Your task to perform on an android device: manage bookmarks in the chrome app Image 0: 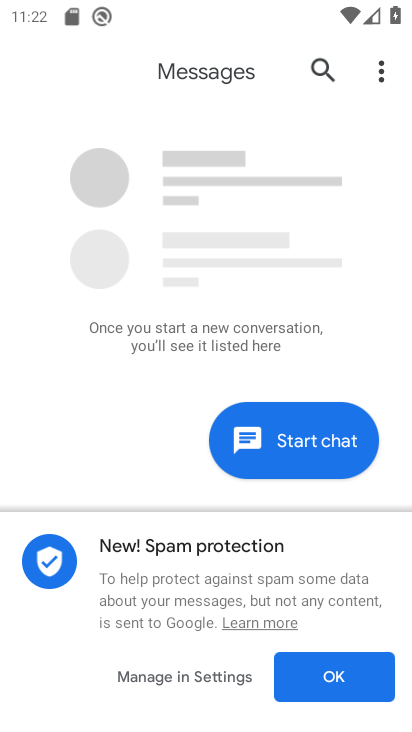
Step 0: press home button
Your task to perform on an android device: manage bookmarks in the chrome app Image 1: 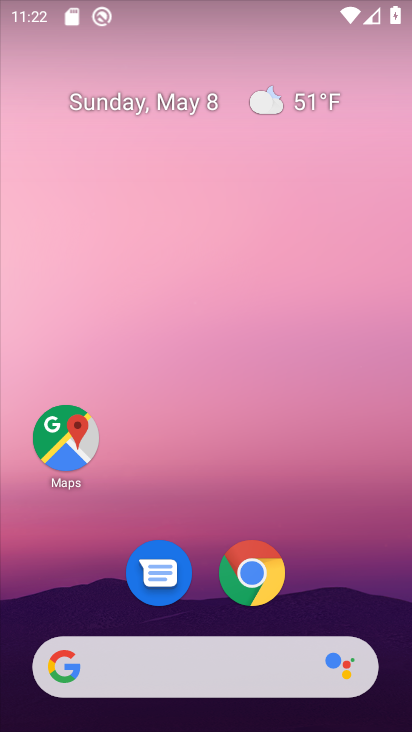
Step 1: click (240, 575)
Your task to perform on an android device: manage bookmarks in the chrome app Image 2: 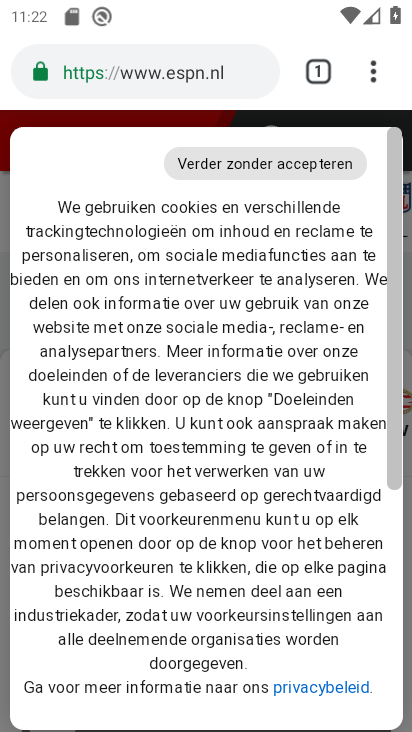
Step 2: click (375, 70)
Your task to perform on an android device: manage bookmarks in the chrome app Image 3: 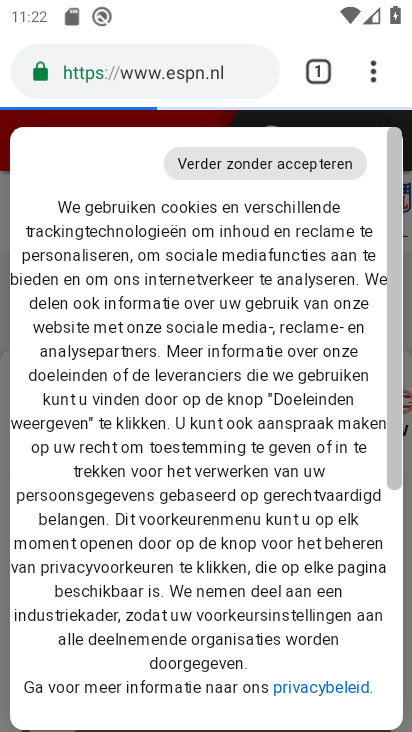
Step 3: click (375, 70)
Your task to perform on an android device: manage bookmarks in the chrome app Image 4: 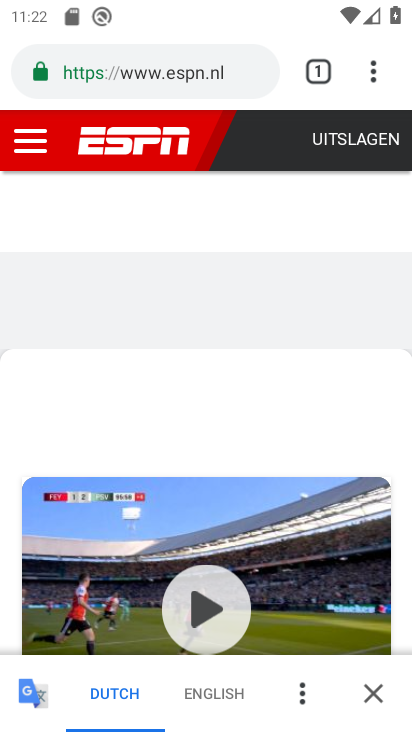
Step 4: click (375, 70)
Your task to perform on an android device: manage bookmarks in the chrome app Image 5: 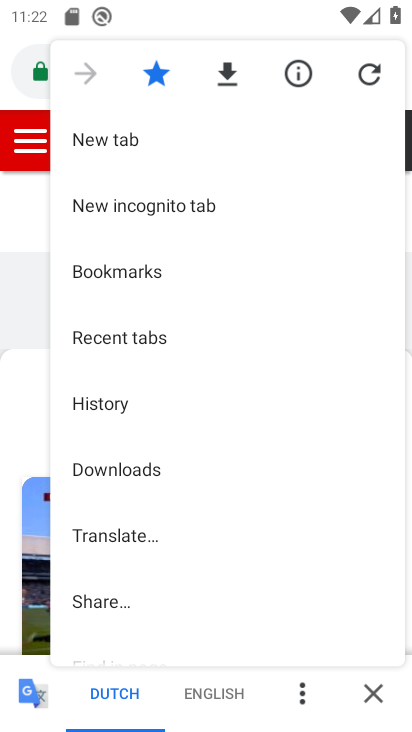
Step 5: click (127, 269)
Your task to perform on an android device: manage bookmarks in the chrome app Image 6: 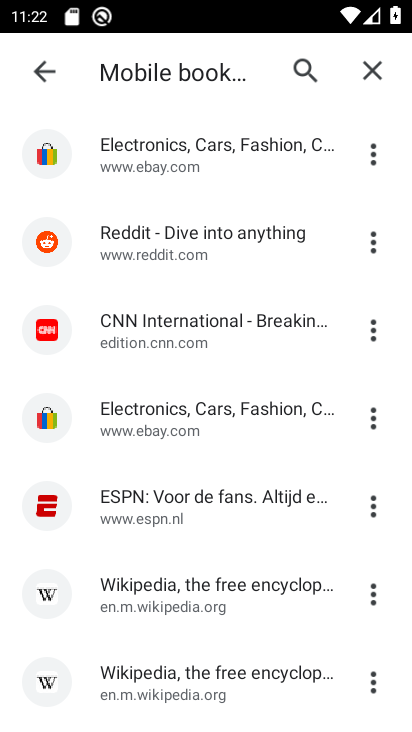
Step 6: click (123, 160)
Your task to perform on an android device: manage bookmarks in the chrome app Image 7: 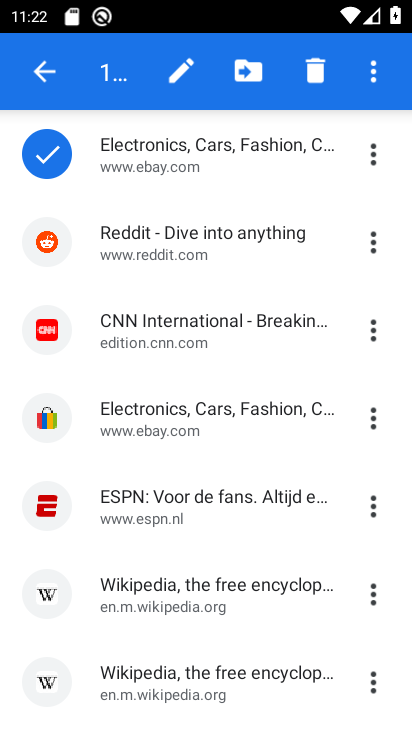
Step 7: click (328, 80)
Your task to perform on an android device: manage bookmarks in the chrome app Image 8: 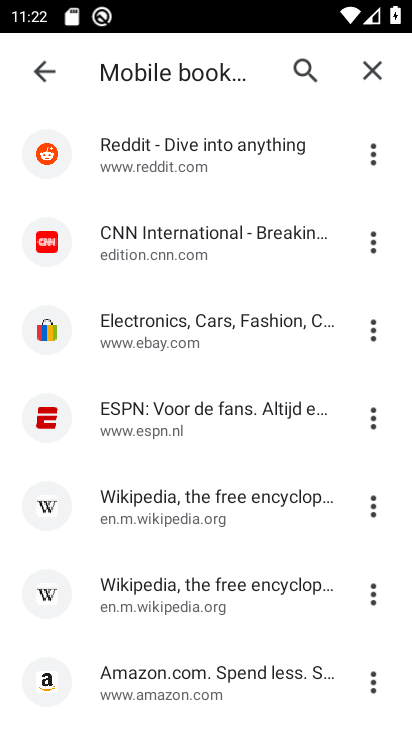
Step 8: click (186, 507)
Your task to perform on an android device: manage bookmarks in the chrome app Image 9: 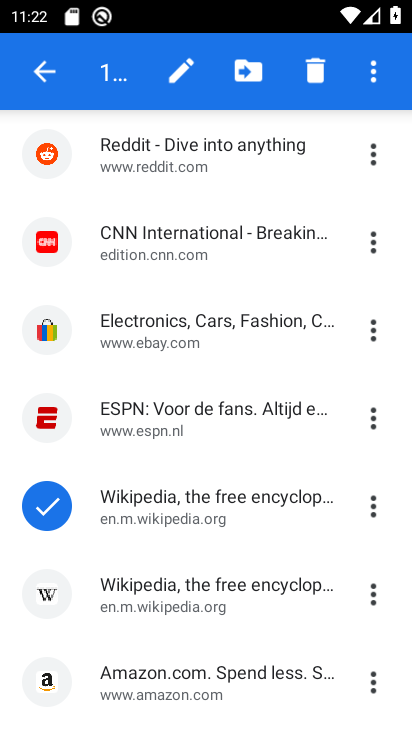
Step 9: click (325, 79)
Your task to perform on an android device: manage bookmarks in the chrome app Image 10: 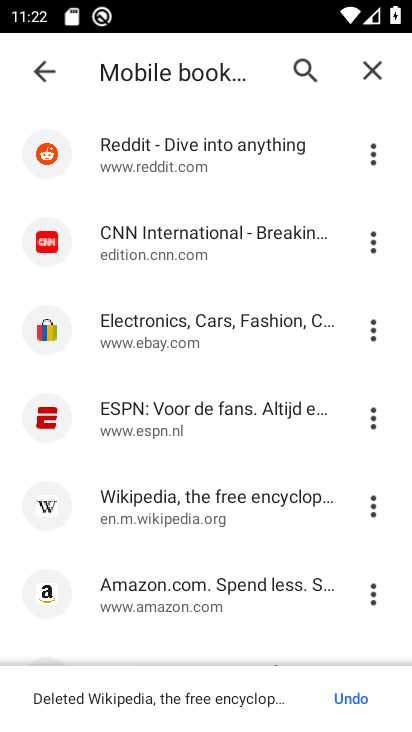
Step 10: drag from (195, 622) to (147, 326)
Your task to perform on an android device: manage bookmarks in the chrome app Image 11: 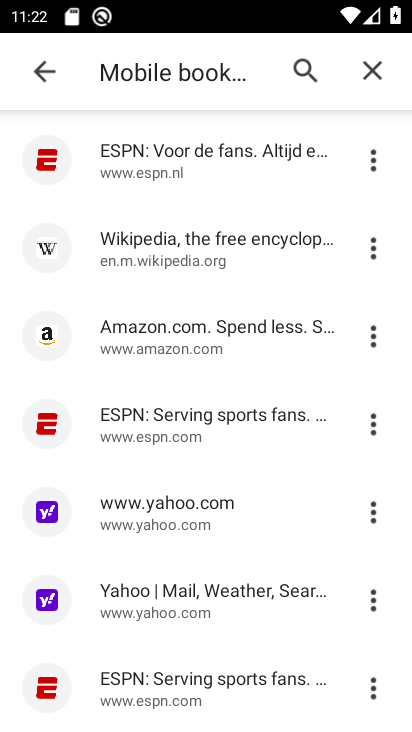
Step 11: drag from (172, 664) to (123, 370)
Your task to perform on an android device: manage bookmarks in the chrome app Image 12: 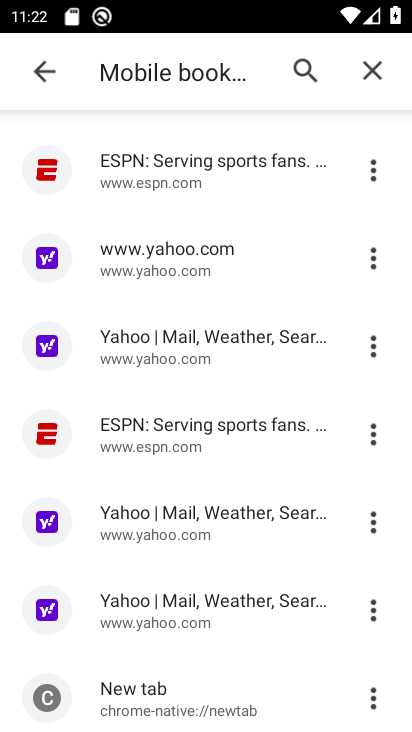
Step 12: click (131, 425)
Your task to perform on an android device: manage bookmarks in the chrome app Image 13: 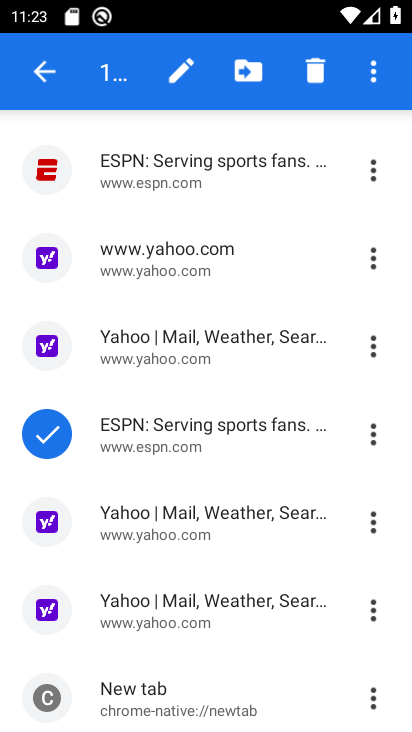
Step 13: click (321, 68)
Your task to perform on an android device: manage bookmarks in the chrome app Image 14: 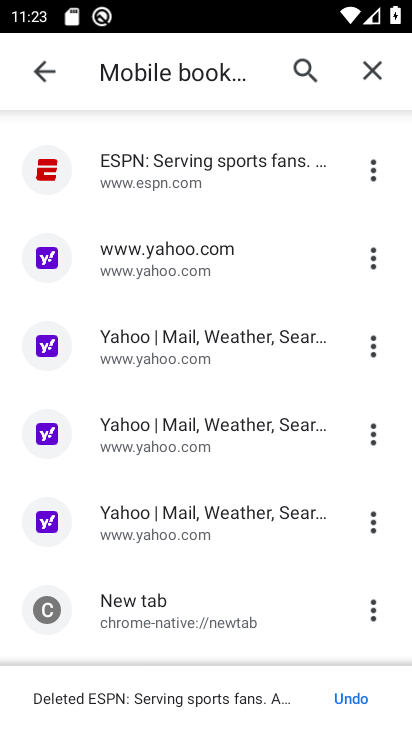
Step 14: click (169, 527)
Your task to perform on an android device: manage bookmarks in the chrome app Image 15: 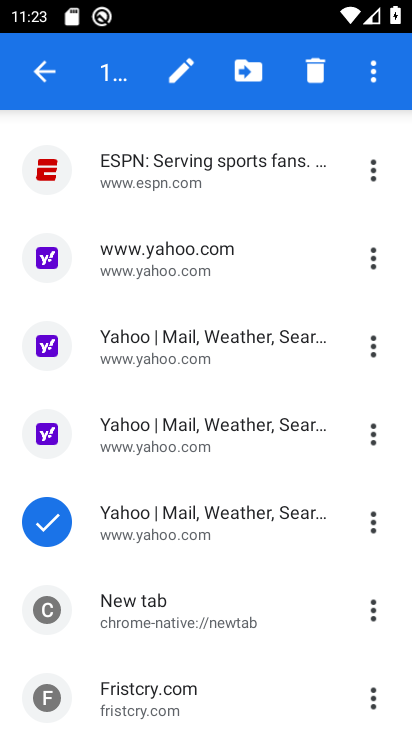
Step 15: click (321, 63)
Your task to perform on an android device: manage bookmarks in the chrome app Image 16: 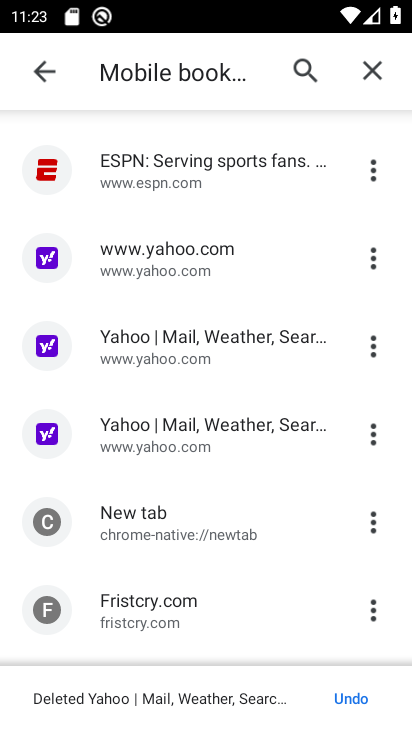
Step 16: drag from (156, 648) to (122, 387)
Your task to perform on an android device: manage bookmarks in the chrome app Image 17: 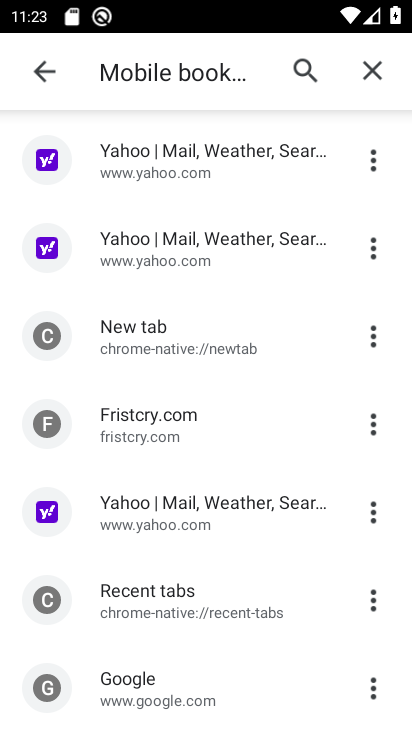
Step 17: click (133, 504)
Your task to perform on an android device: manage bookmarks in the chrome app Image 18: 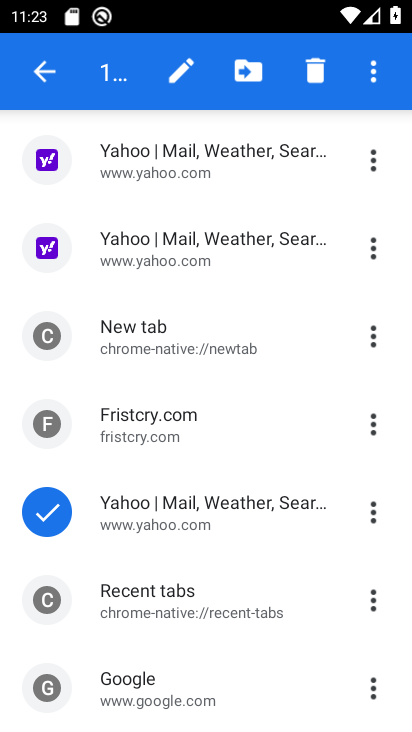
Step 18: click (322, 70)
Your task to perform on an android device: manage bookmarks in the chrome app Image 19: 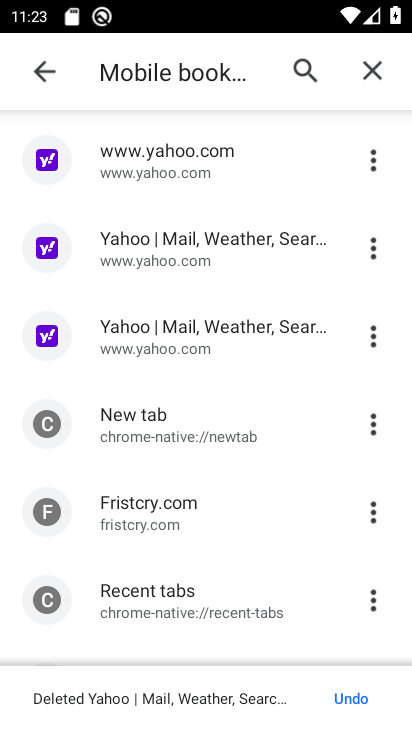
Step 19: click (238, 334)
Your task to perform on an android device: manage bookmarks in the chrome app Image 20: 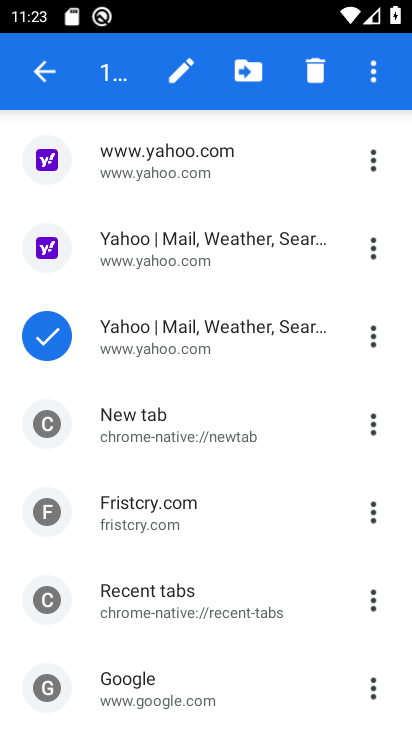
Step 20: click (310, 72)
Your task to perform on an android device: manage bookmarks in the chrome app Image 21: 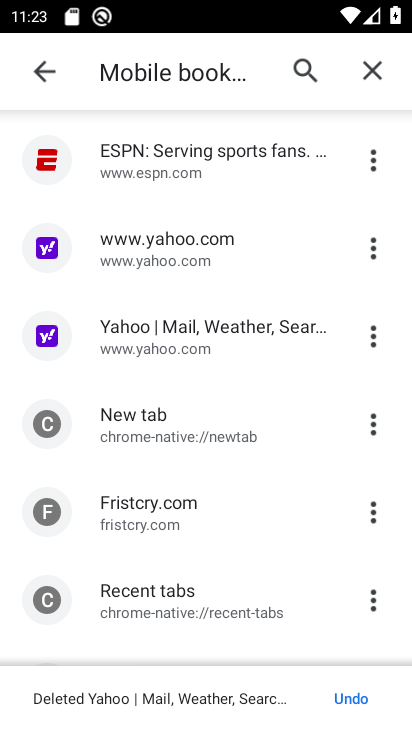
Step 21: task complete